Your task to perform on an android device: add a label to a message in the gmail app Image 0: 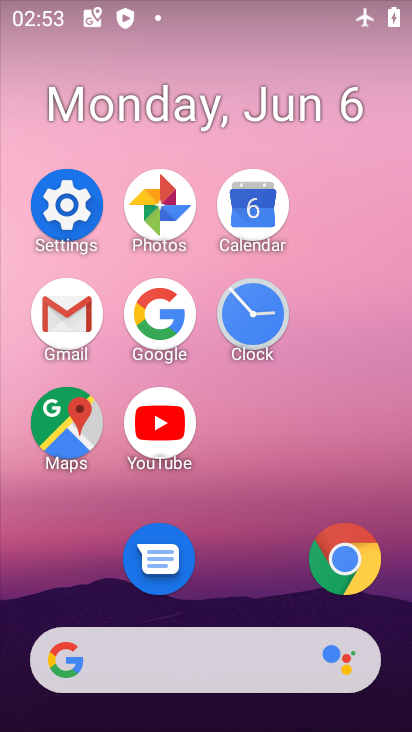
Step 0: click (96, 313)
Your task to perform on an android device: add a label to a message in the gmail app Image 1: 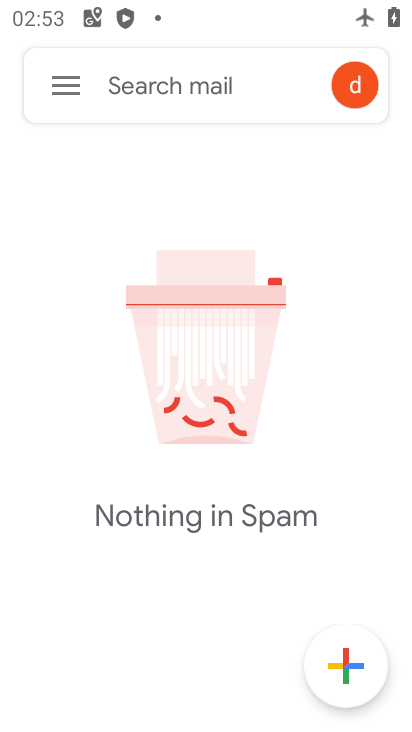
Step 1: click (87, 88)
Your task to perform on an android device: add a label to a message in the gmail app Image 2: 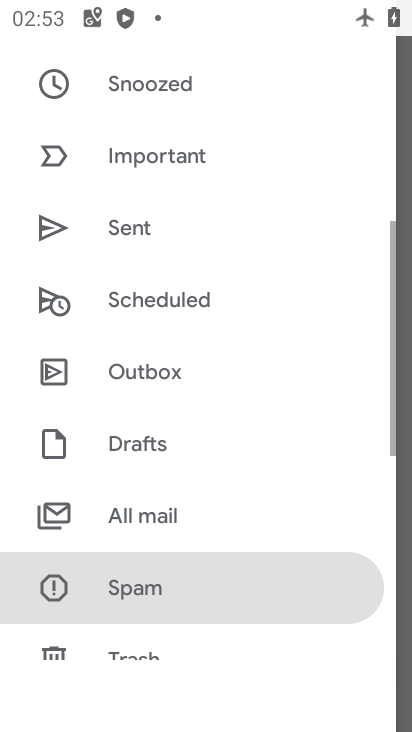
Step 2: drag from (143, 491) to (195, 147)
Your task to perform on an android device: add a label to a message in the gmail app Image 3: 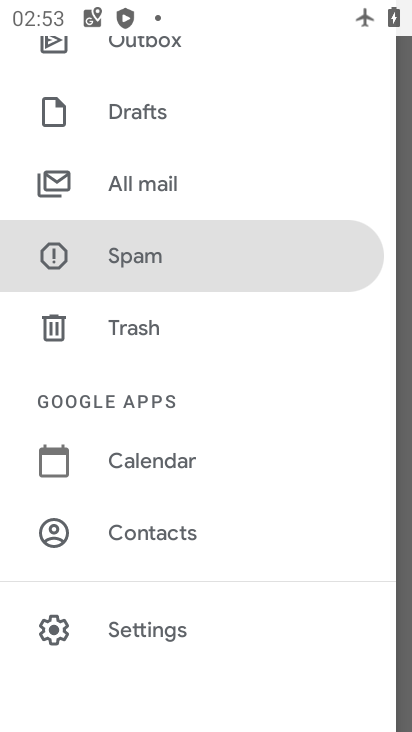
Step 3: click (180, 184)
Your task to perform on an android device: add a label to a message in the gmail app Image 4: 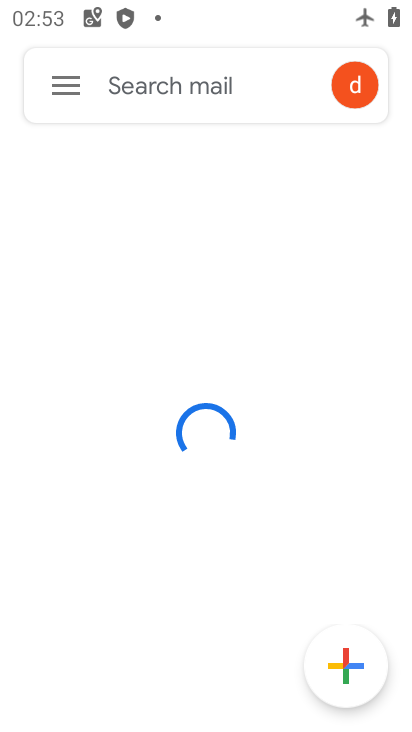
Step 4: task complete